Your task to perform on an android device: change notifications settings Image 0: 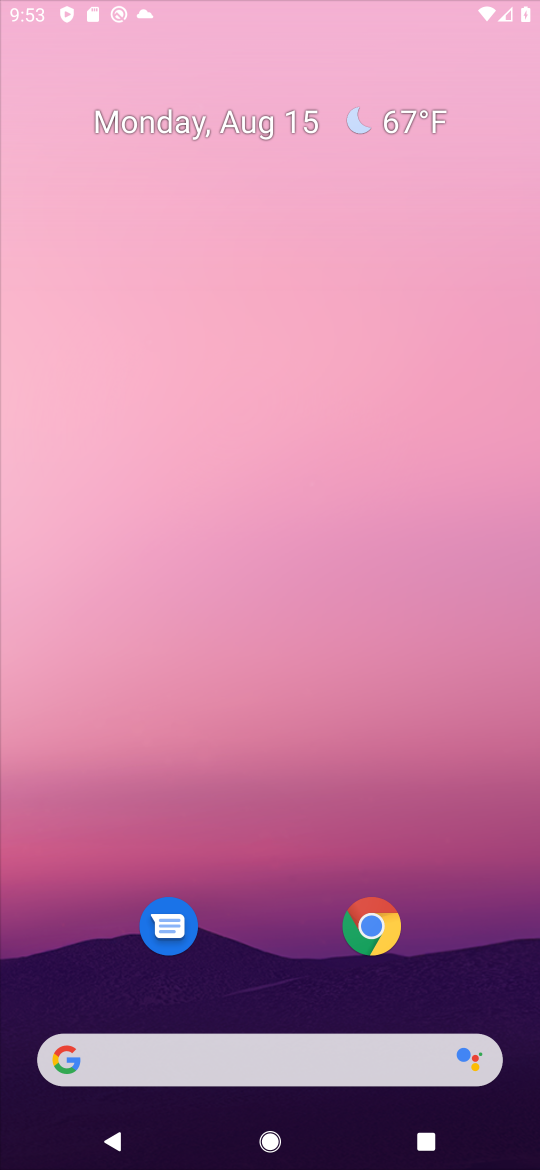
Step 0: press home button
Your task to perform on an android device: change notifications settings Image 1: 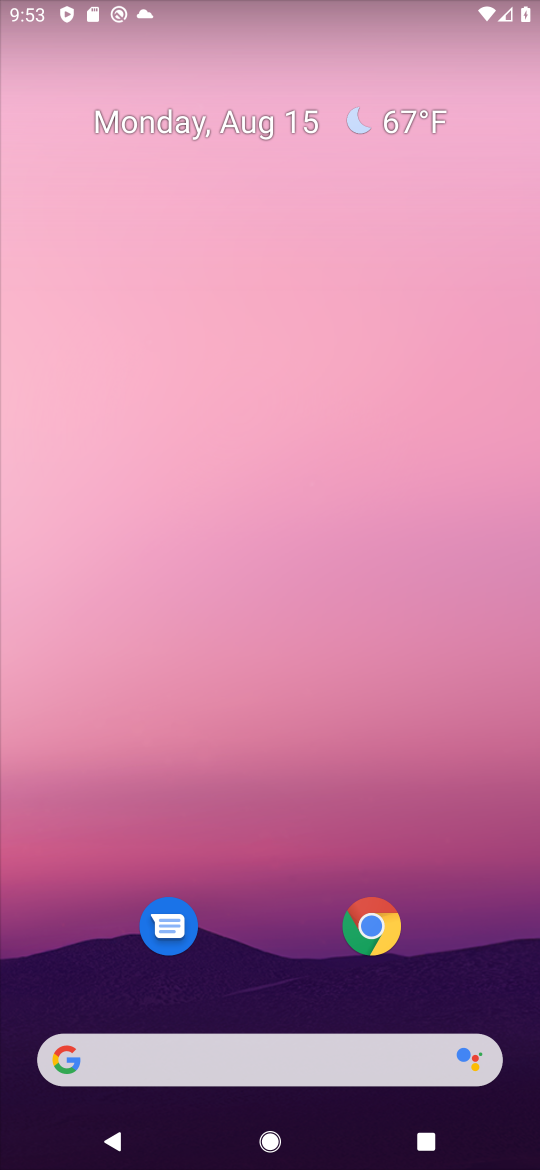
Step 1: drag from (260, 972) to (248, 38)
Your task to perform on an android device: change notifications settings Image 2: 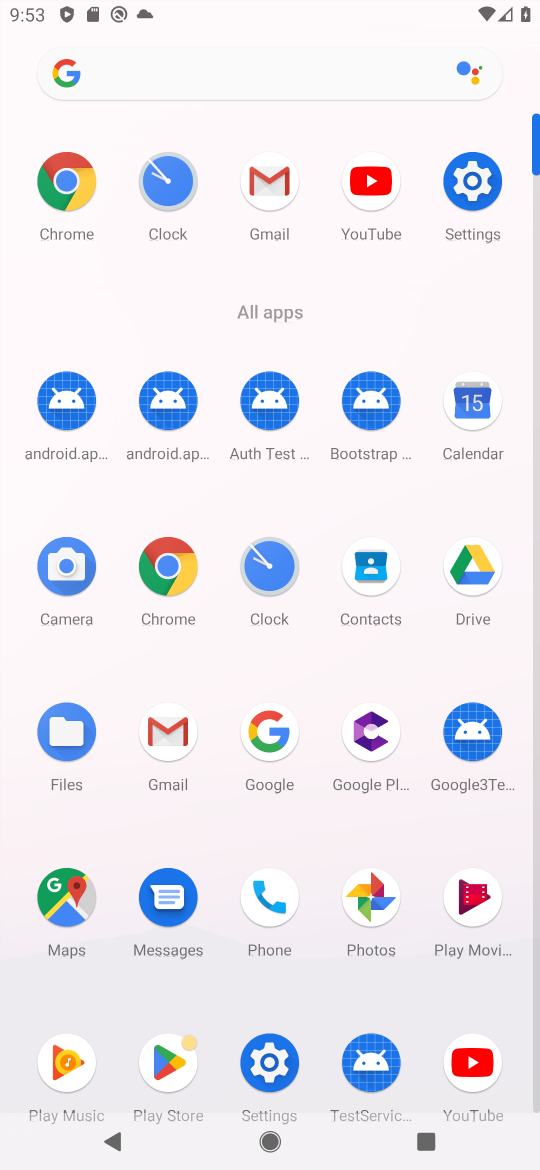
Step 2: click (277, 1065)
Your task to perform on an android device: change notifications settings Image 3: 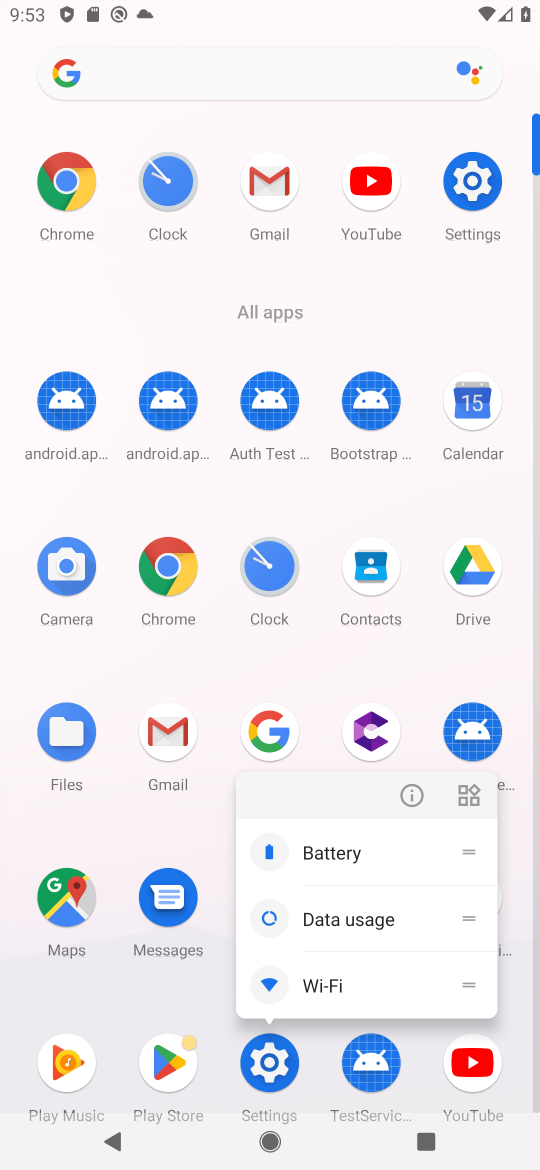
Step 3: click (289, 1093)
Your task to perform on an android device: change notifications settings Image 4: 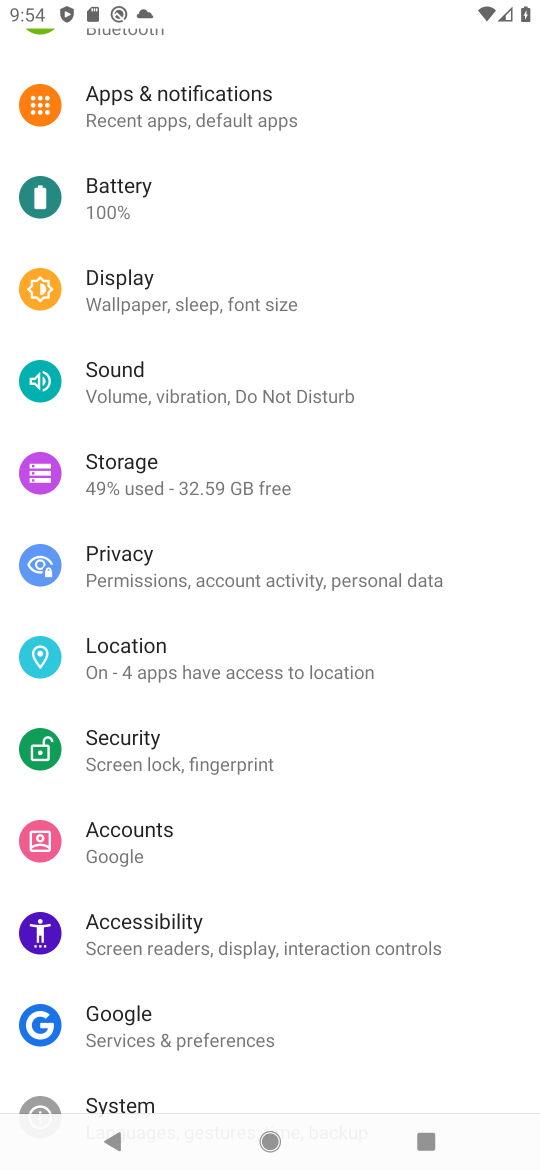
Step 4: click (296, 106)
Your task to perform on an android device: change notifications settings Image 5: 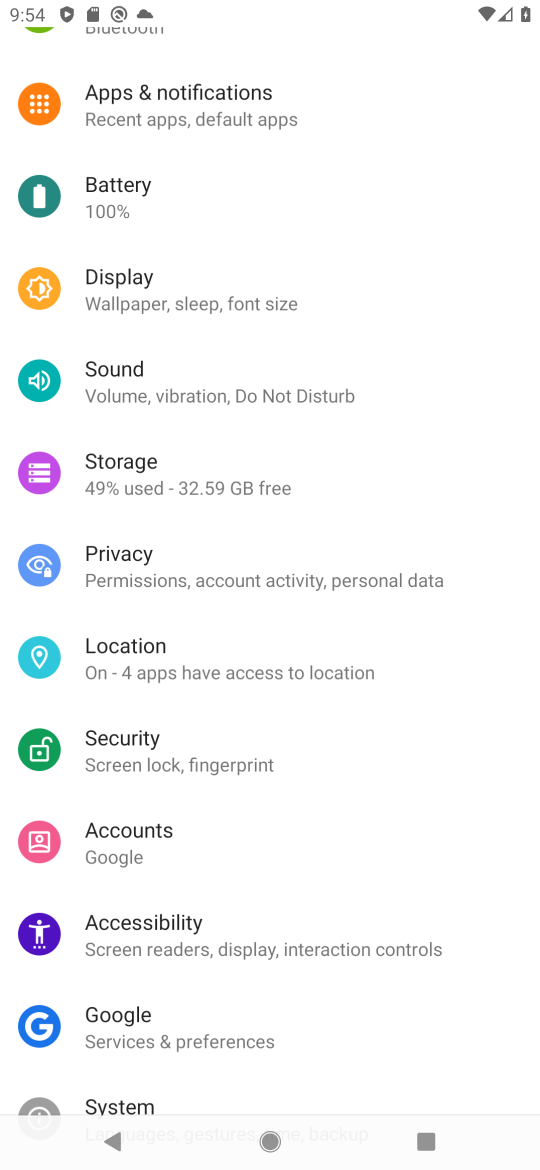
Step 5: task complete